Your task to perform on an android device: Is it going to rain tomorrow? Image 0: 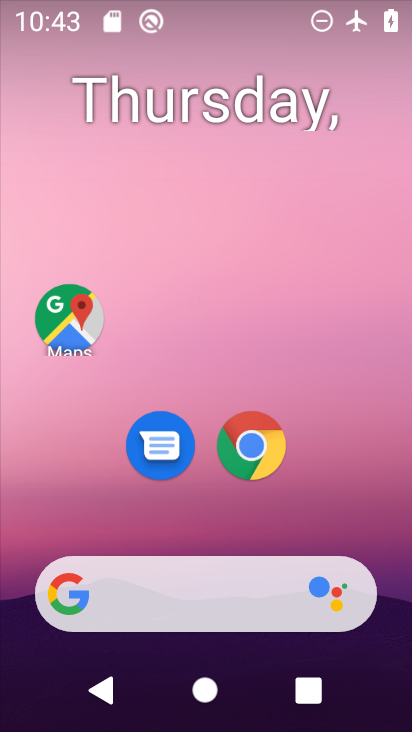
Step 0: click (198, 590)
Your task to perform on an android device: Is it going to rain tomorrow? Image 1: 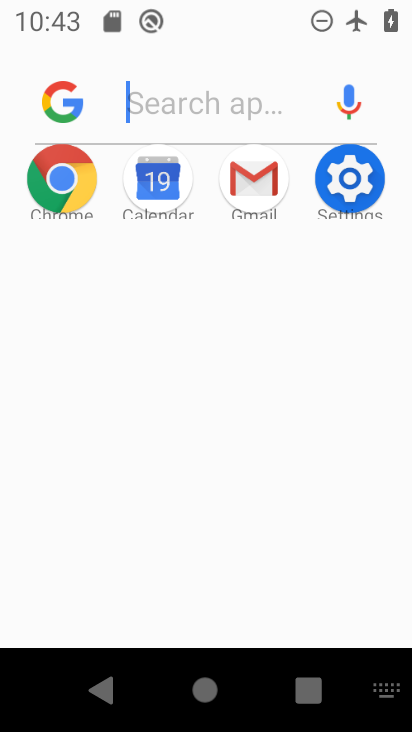
Step 1: press back button
Your task to perform on an android device: Is it going to rain tomorrow? Image 2: 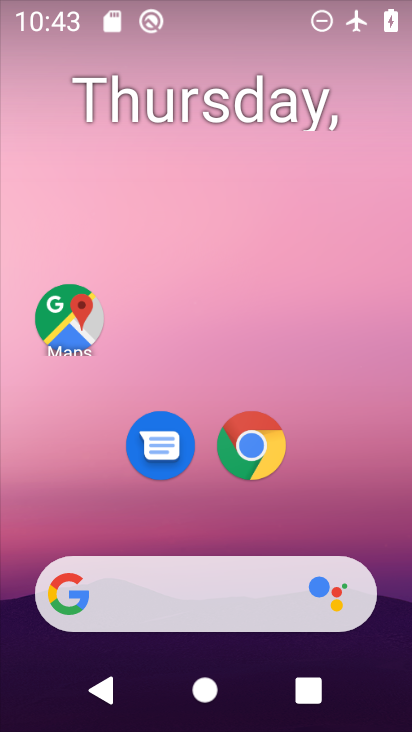
Step 2: click (213, 608)
Your task to perform on an android device: Is it going to rain tomorrow? Image 3: 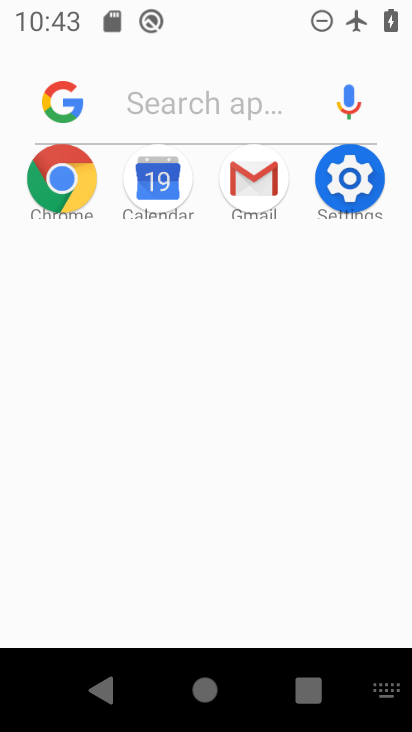
Step 3: click (241, 98)
Your task to perform on an android device: Is it going to rain tomorrow? Image 4: 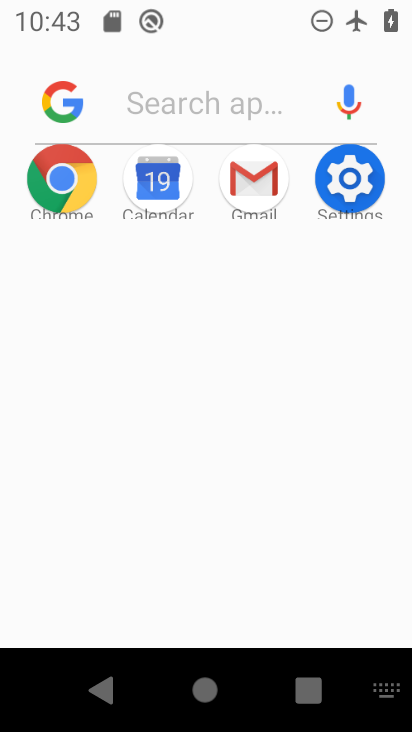
Step 4: type "weather"
Your task to perform on an android device: Is it going to rain tomorrow? Image 5: 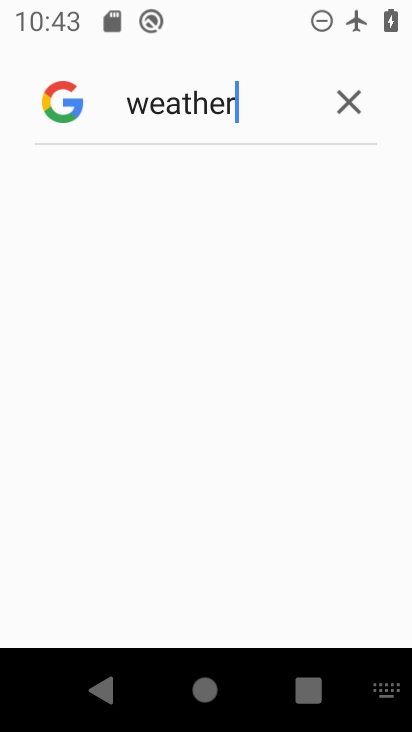
Step 5: task complete